Your task to perform on an android device: Do I have any events tomorrow? Image 0: 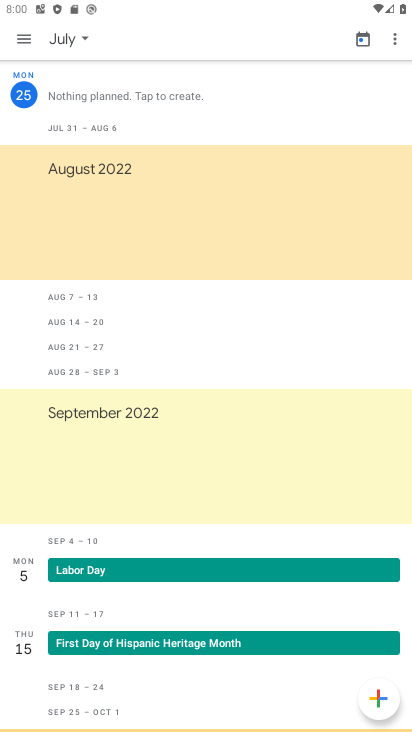
Step 0: task complete